Your task to perform on an android device: turn off smart reply in the gmail app Image 0: 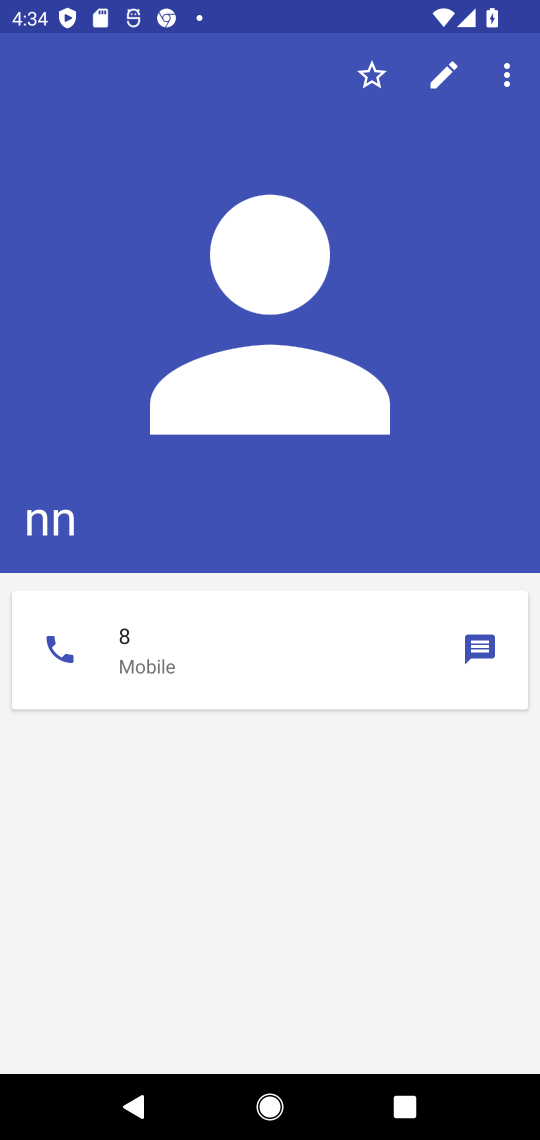
Step 0: press home button
Your task to perform on an android device: turn off smart reply in the gmail app Image 1: 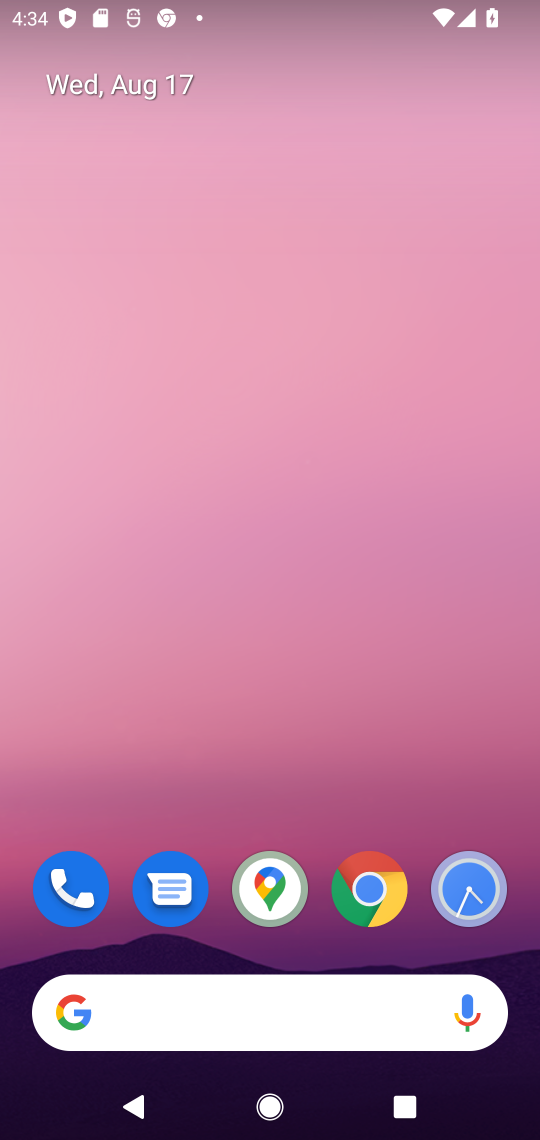
Step 1: drag from (318, 799) to (264, 98)
Your task to perform on an android device: turn off smart reply in the gmail app Image 2: 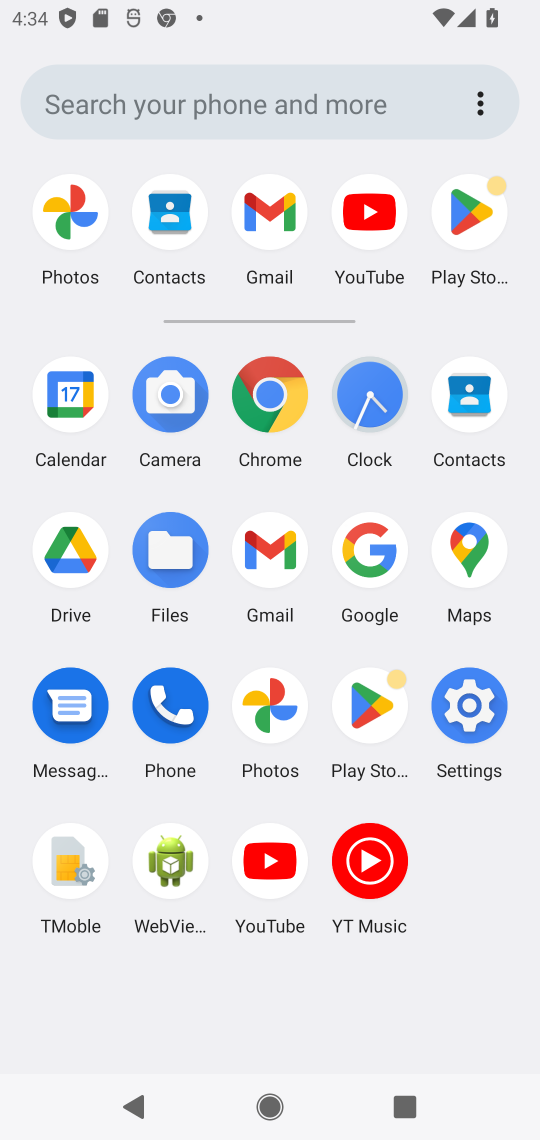
Step 2: click (265, 206)
Your task to perform on an android device: turn off smart reply in the gmail app Image 3: 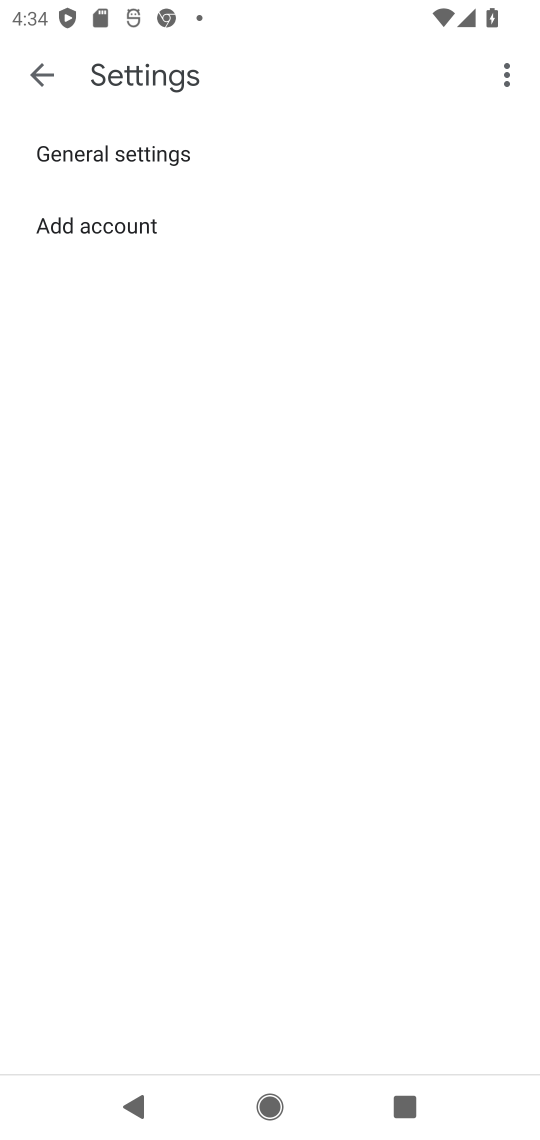
Step 3: click (41, 74)
Your task to perform on an android device: turn off smart reply in the gmail app Image 4: 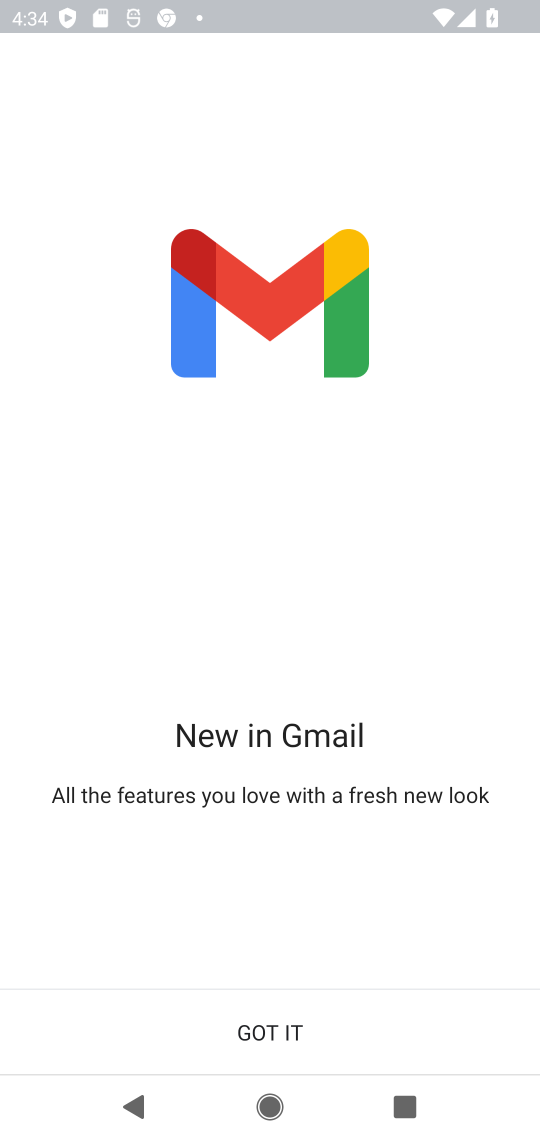
Step 4: click (285, 1027)
Your task to perform on an android device: turn off smart reply in the gmail app Image 5: 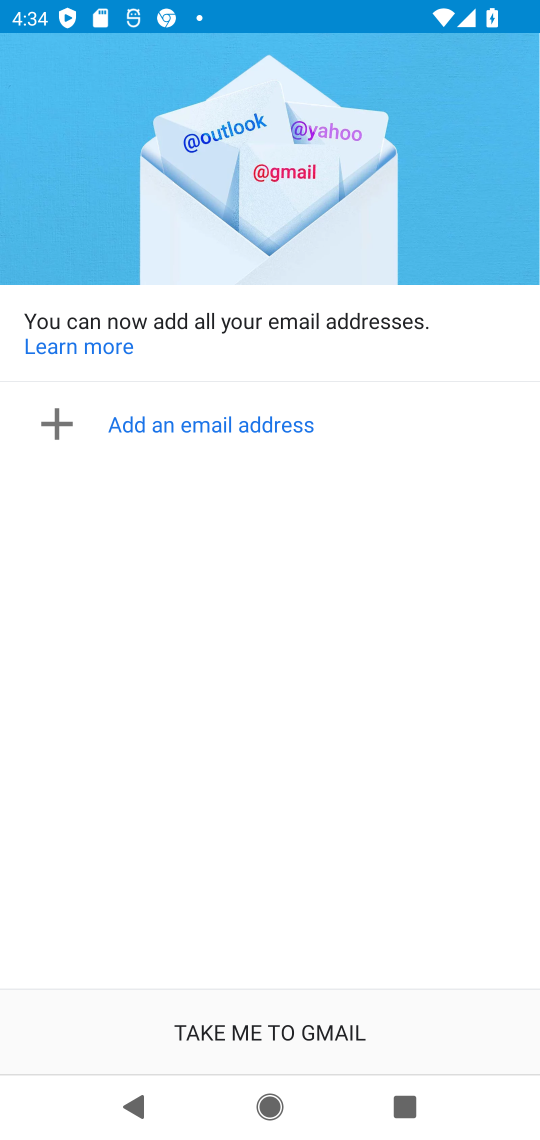
Step 5: click (285, 1027)
Your task to perform on an android device: turn off smart reply in the gmail app Image 6: 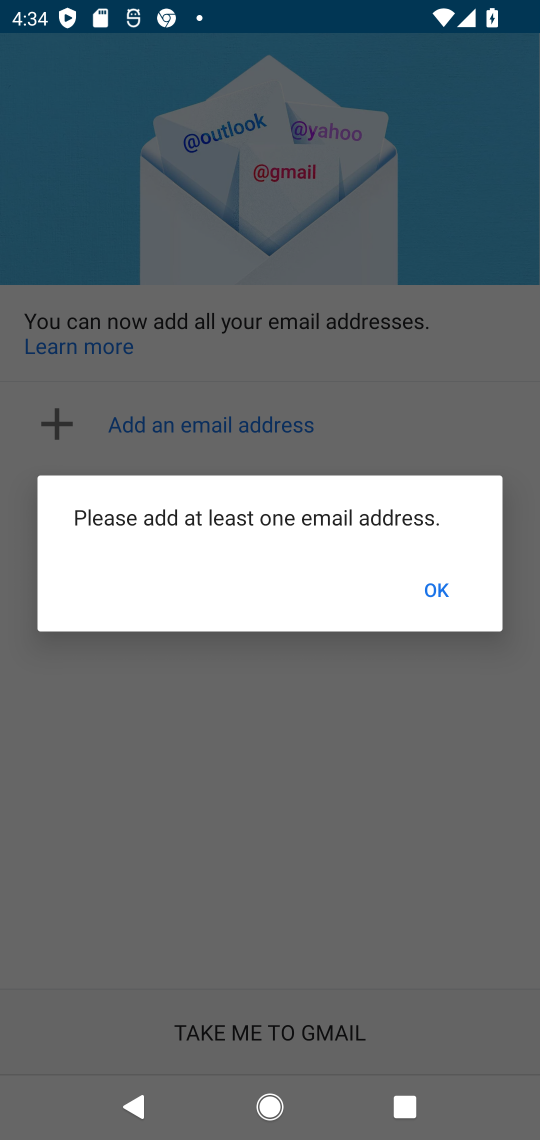
Step 6: click (435, 584)
Your task to perform on an android device: turn off smart reply in the gmail app Image 7: 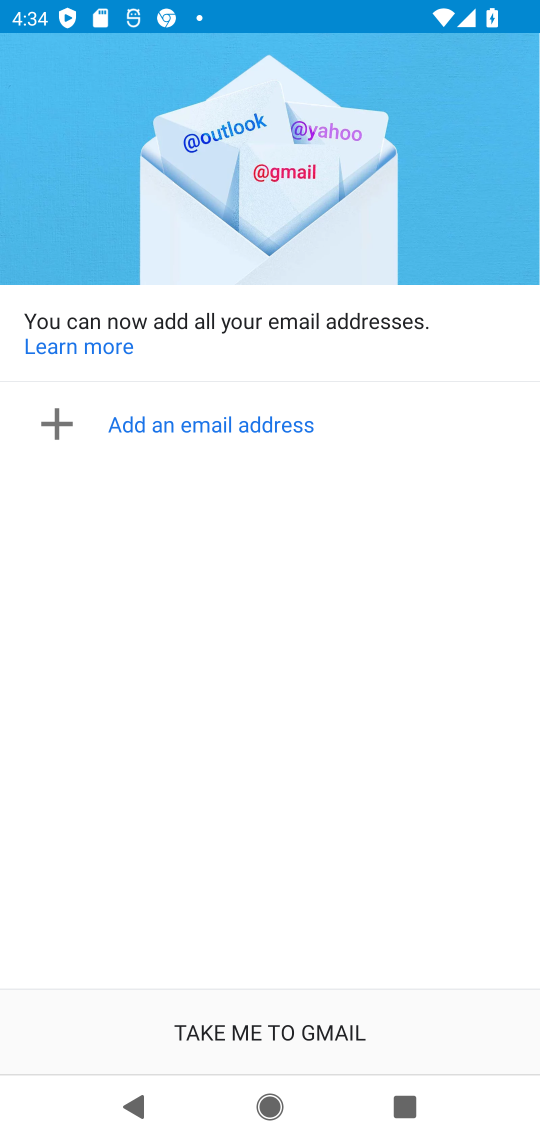
Step 7: task complete